Your task to perform on an android device: uninstall "Google Chrome" Image 0: 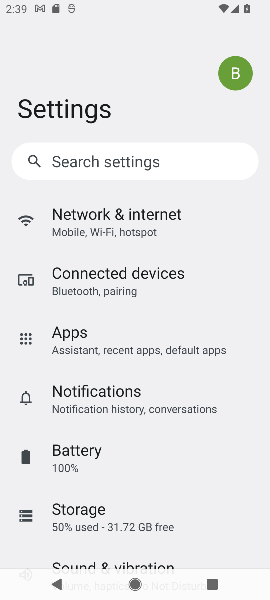
Step 0: press home button
Your task to perform on an android device: uninstall "Google Chrome" Image 1: 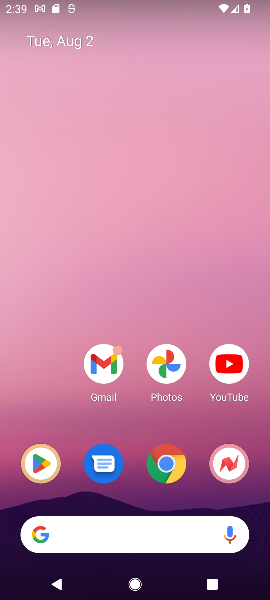
Step 1: click (39, 463)
Your task to perform on an android device: uninstall "Google Chrome" Image 2: 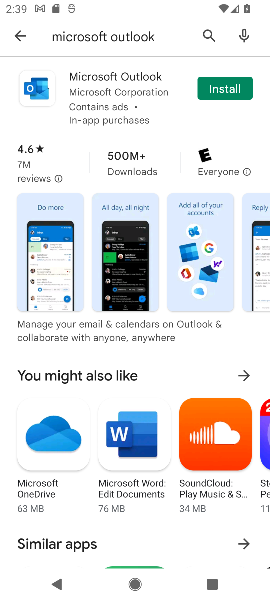
Step 2: click (211, 30)
Your task to perform on an android device: uninstall "Google Chrome" Image 3: 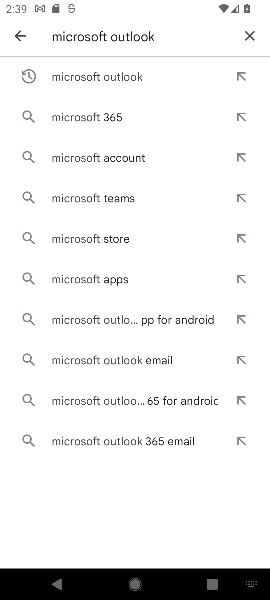
Step 3: click (247, 27)
Your task to perform on an android device: uninstall "Google Chrome" Image 4: 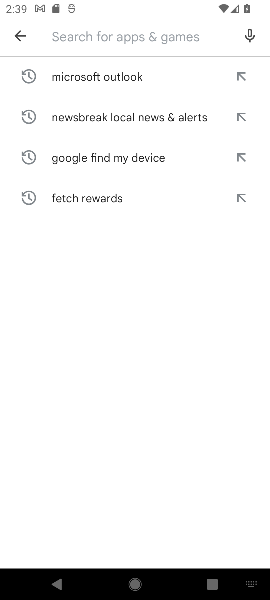
Step 4: type "Google Chrome"
Your task to perform on an android device: uninstall "Google Chrome" Image 5: 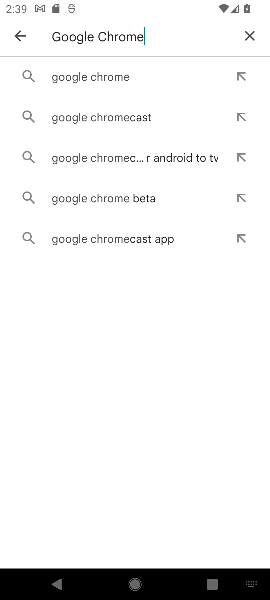
Step 5: click (113, 73)
Your task to perform on an android device: uninstall "Google Chrome" Image 6: 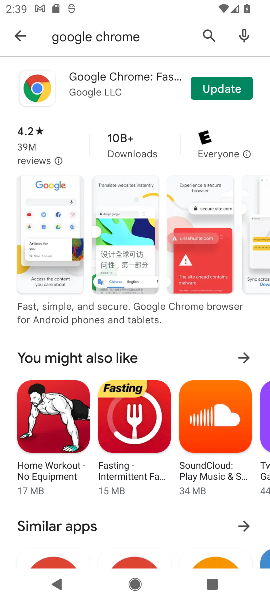
Step 6: click (68, 81)
Your task to perform on an android device: uninstall "Google Chrome" Image 7: 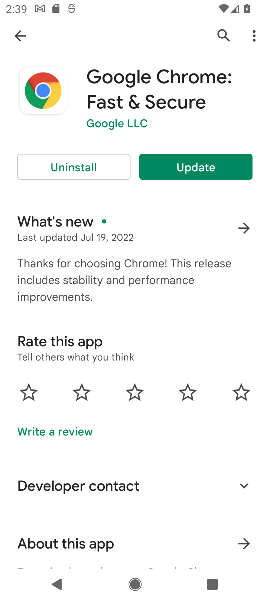
Step 7: click (78, 163)
Your task to perform on an android device: uninstall "Google Chrome" Image 8: 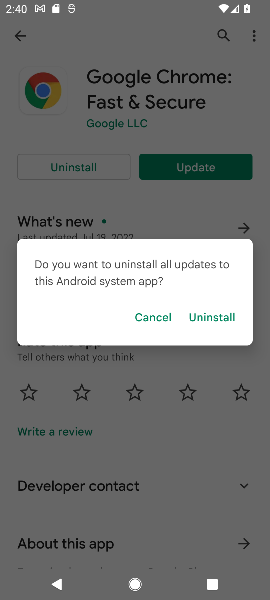
Step 8: click (209, 319)
Your task to perform on an android device: uninstall "Google Chrome" Image 9: 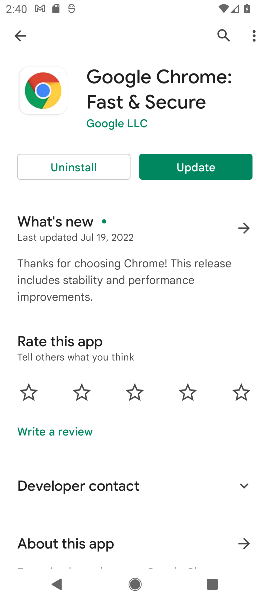
Step 9: task complete